Your task to perform on an android device: add a contact Image 0: 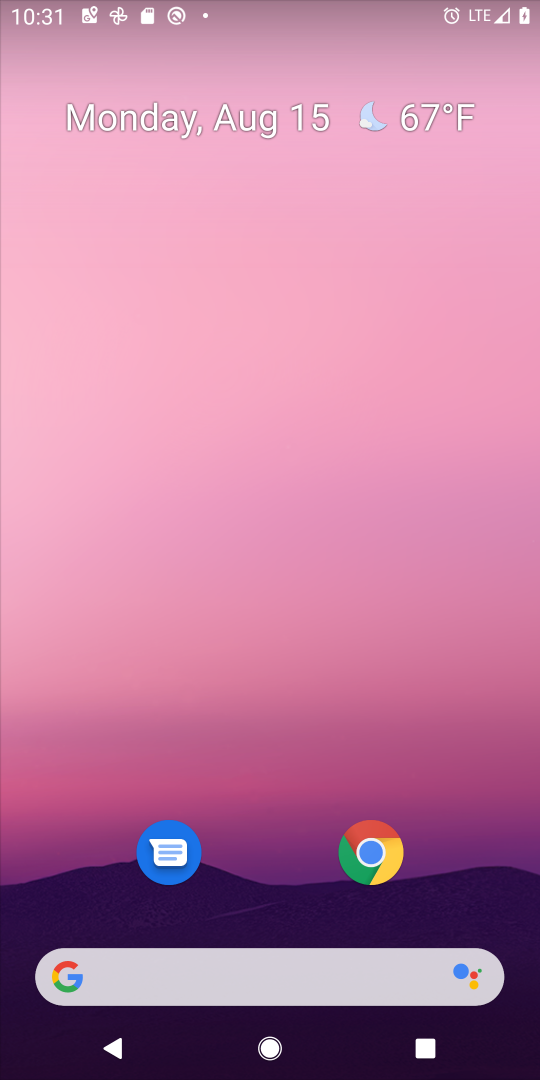
Step 0: drag from (228, 976) to (343, 1)
Your task to perform on an android device: add a contact Image 1: 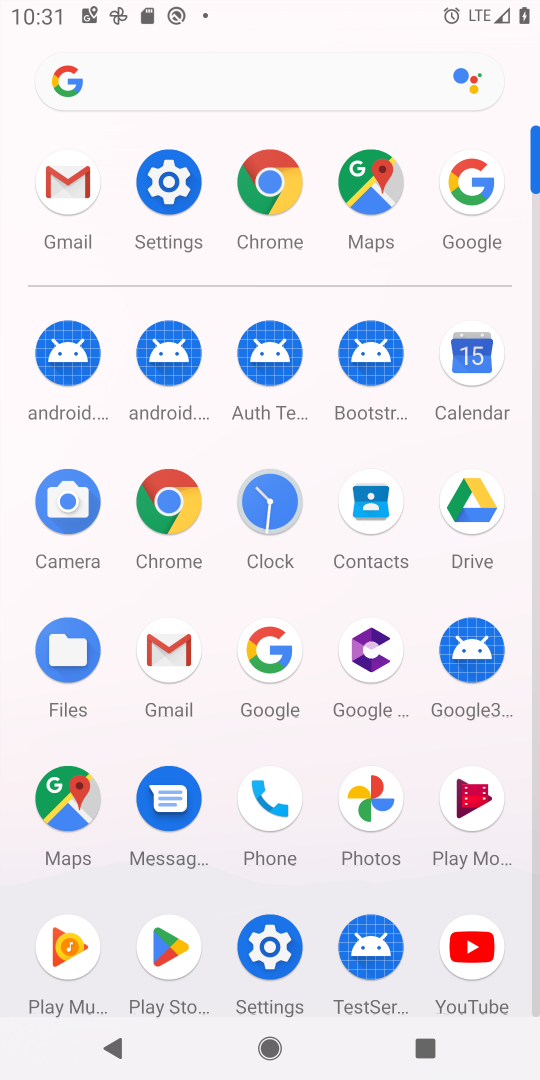
Step 1: click (369, 504)
Your task to perform on an android device: add a contact Image 2: 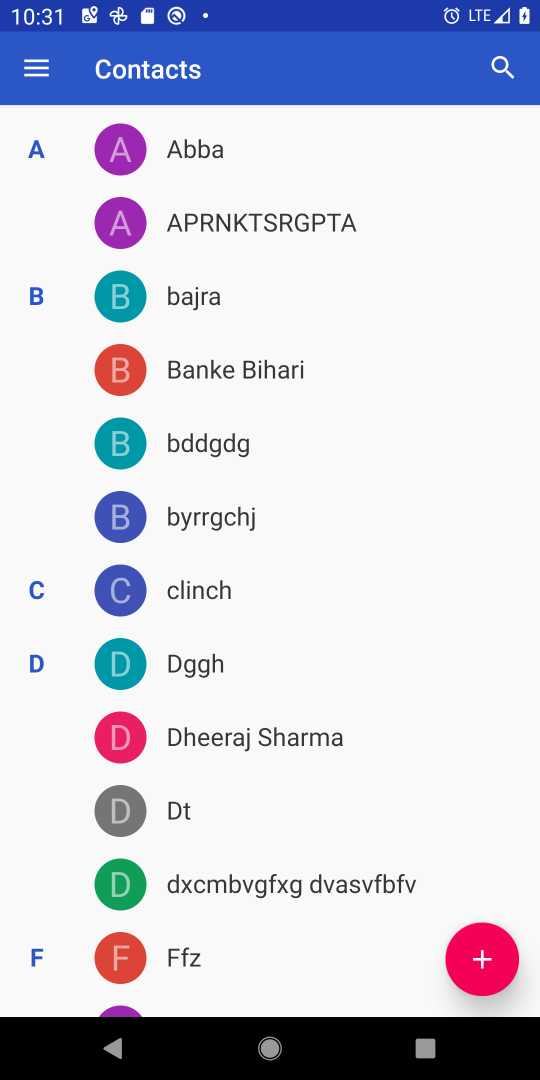
Step 2: click (483, 959)
Your task to perform on an android device: add a contact Image 3: 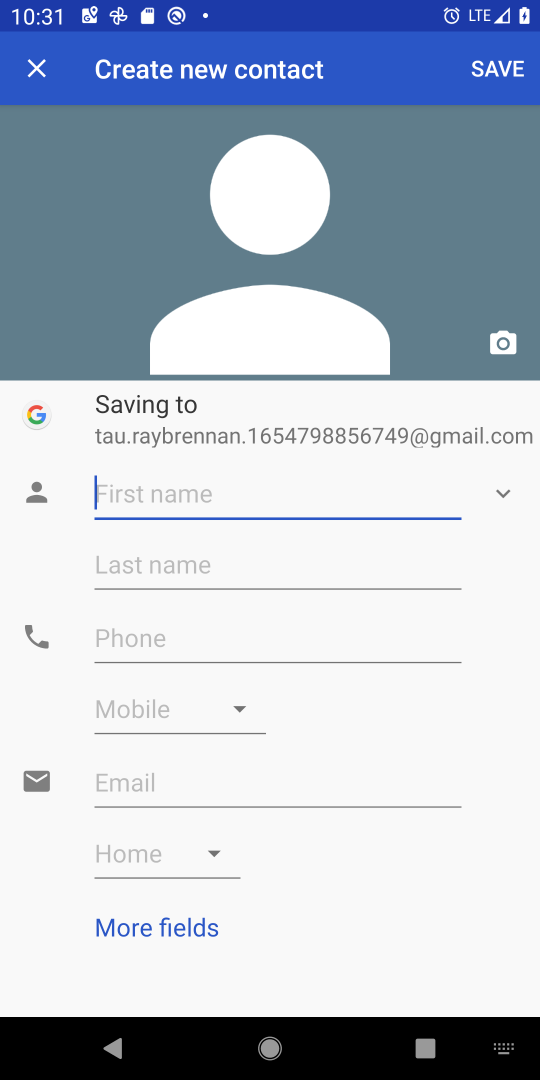
Step 3: click (228, 500)
Your task to perform on an android device: add a contact Image 4: 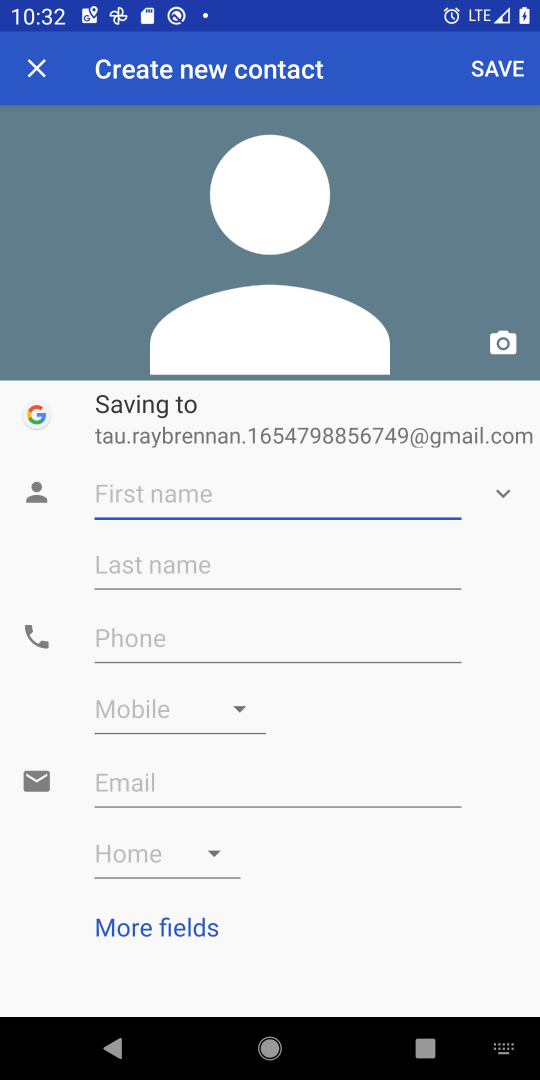
Step 4: type "Varsha"
Your task to perform on an android device: add a contact Image 5: 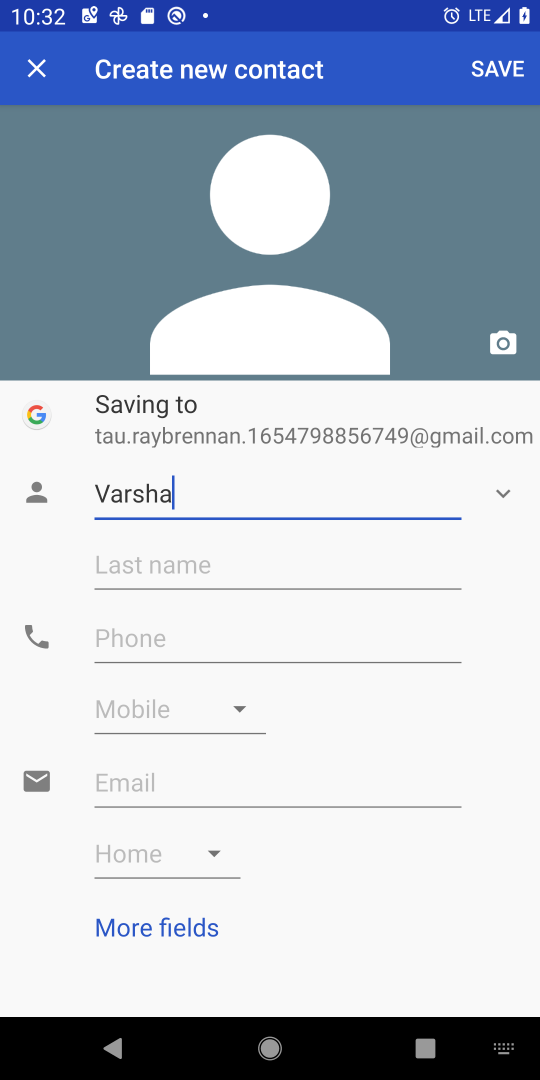
Step 5: click (204, 584)
Your task to perform on an android device: add a contact Image 6: 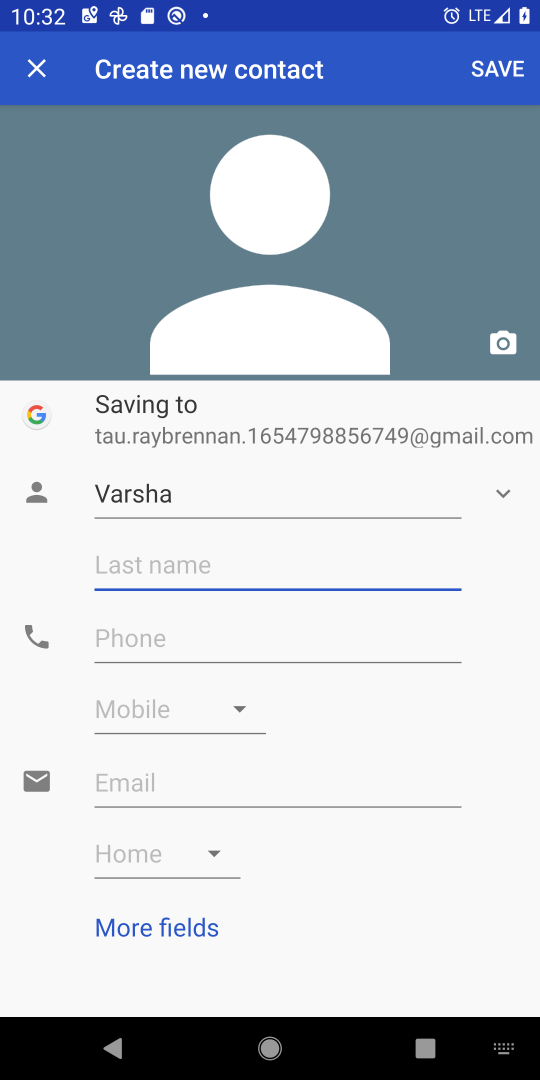
Step 6: type "Raikwar"
Your task to perform on an android device: add a contact Image 7: 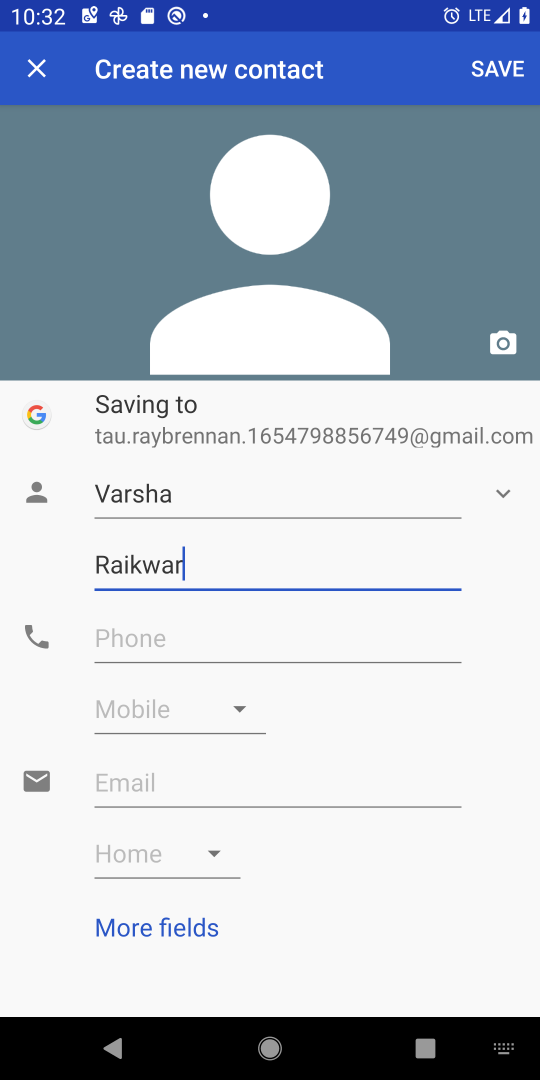
Step 7: click (300, 648)
Your task to perform on an android device: add a contact Image 8: 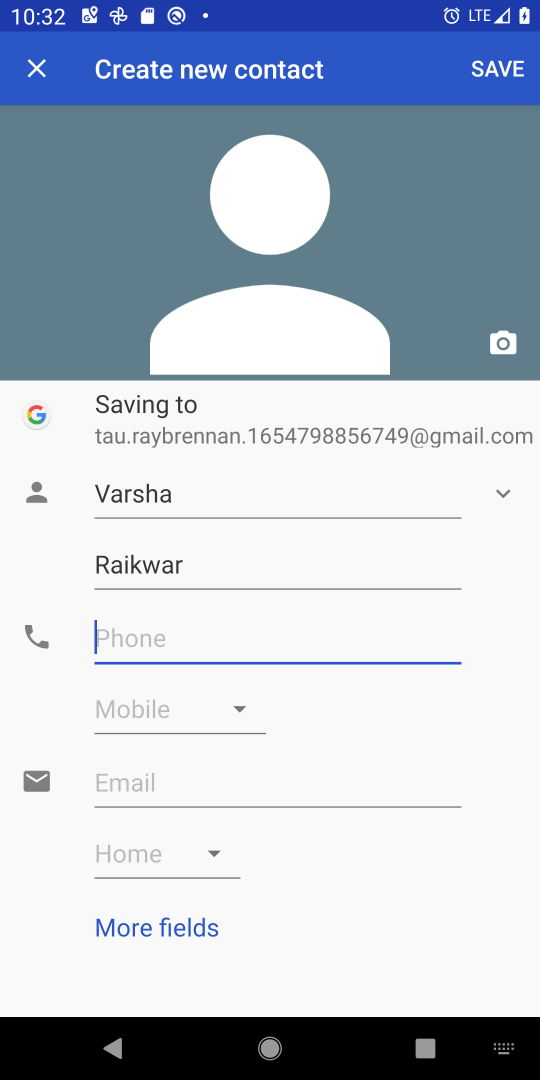
Step 8: type "09812398732"
Your task to perform on an android device: add a contact Image 9: 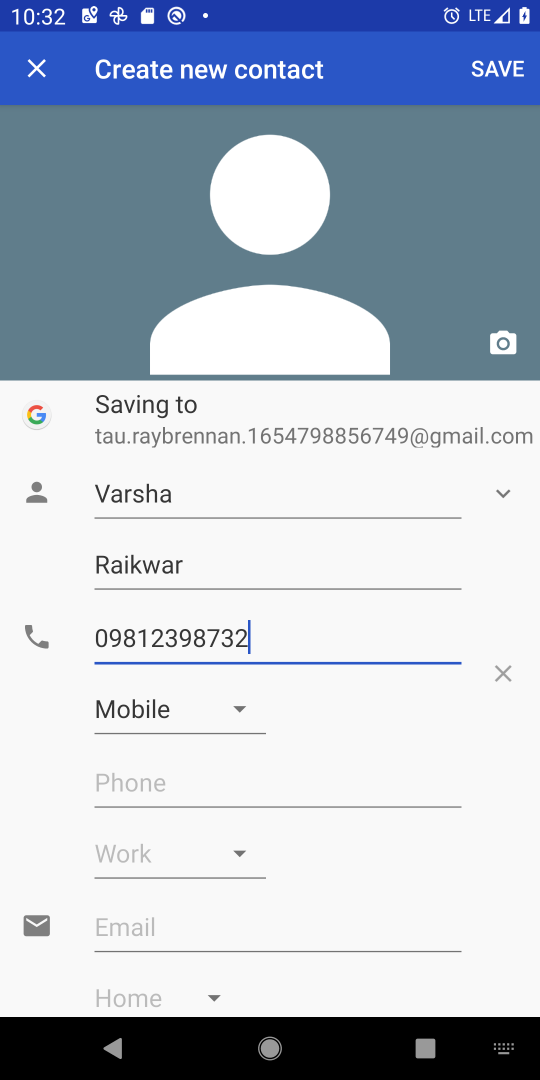
Step 9: click (487, 72)
Your task to perform on an android device: add a contact Image 10: 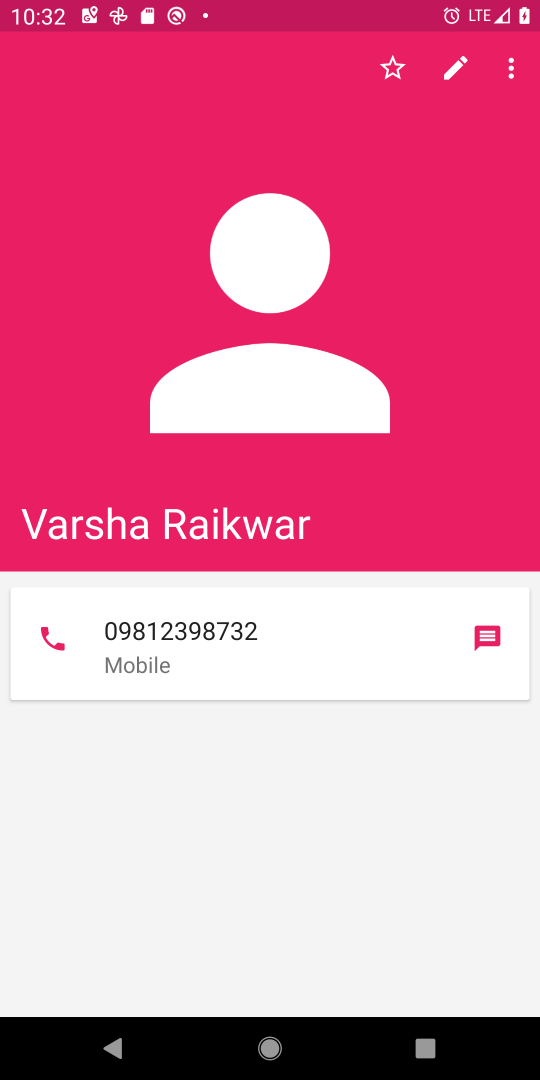
Step 10: task complete